Your task to perform on an android device: Check the news Image 0: 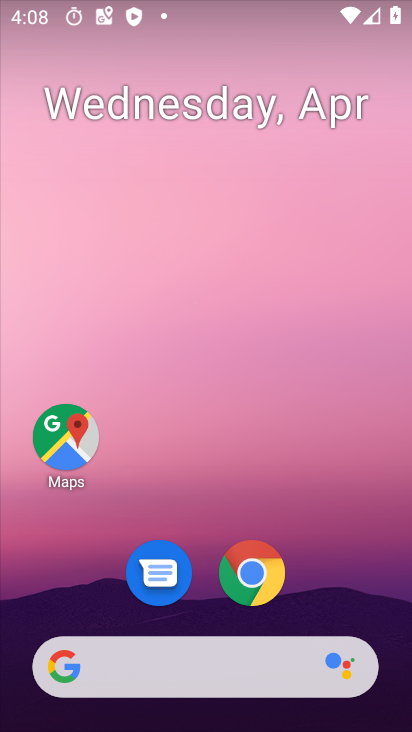
Step 0: click (378, 322)
Your task to perform on an android device: Check the news Image 1: 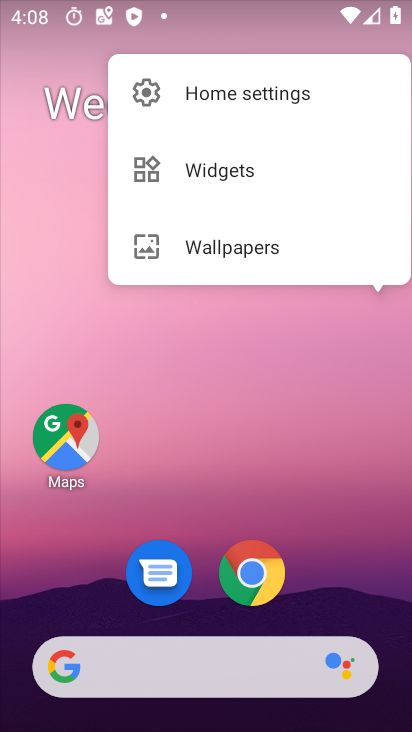
Step 1: task complete